Your task to perform on an android device: delete a single message in the gmail app Image 0: 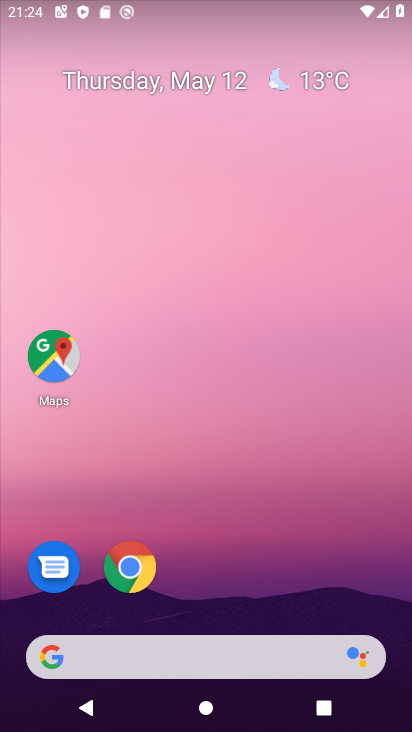
Step 0: drag from (214, 616) to (219, 63)
Your task to perform on an android device: delete a single message in the gmail app Image 1: 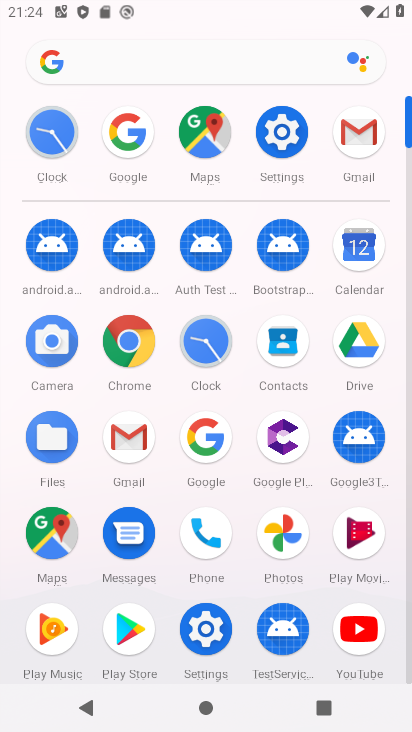
Step 1: click (357, 123)
Your task to perform on an android device: delete a single message in the gmail app Image 2: 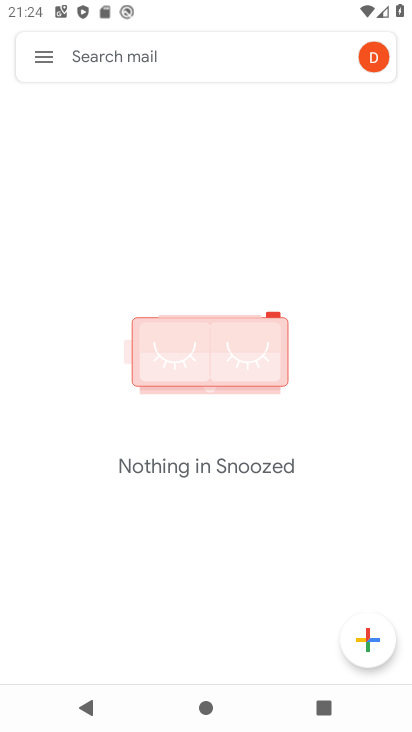
Step 2: click (47, 60)
Your task to perform on an android device: delete a single message in the gmail app Image 3: 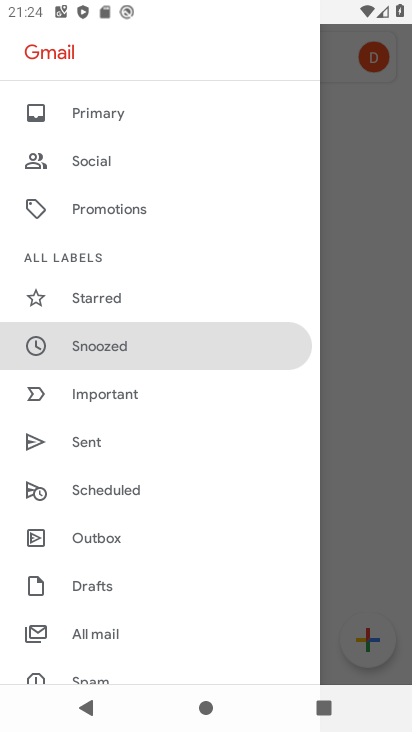
Step 3: click (120, 633)
Your task to perform on an android device: delete a single message in the gmail app Image 4: 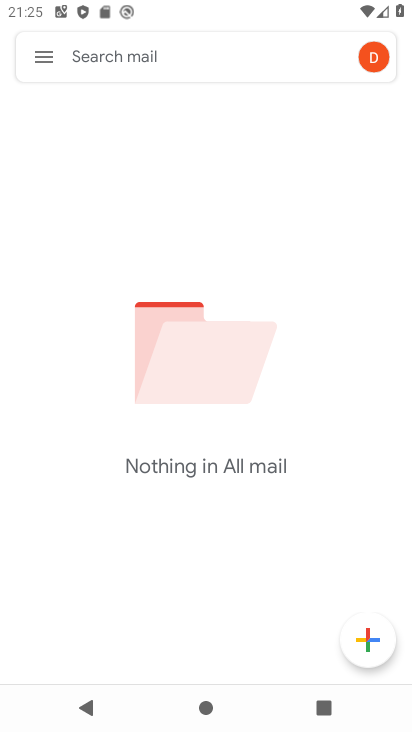
Step 4: task complete